Your task to perform on an android device: set the timer Image 0: 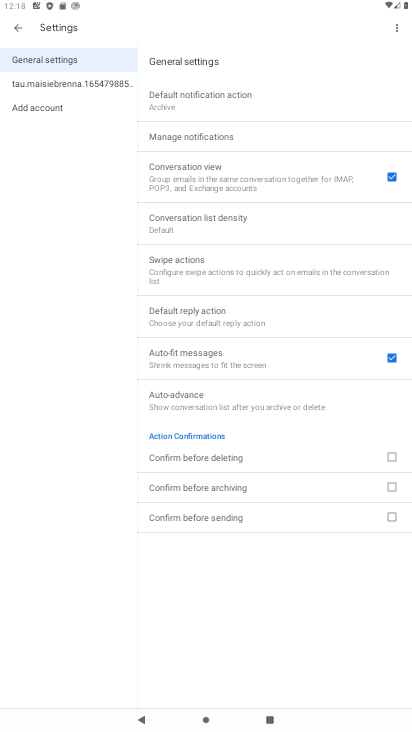
Step 0: press home button
Your task to perform on an android device: set the timer Image 1: 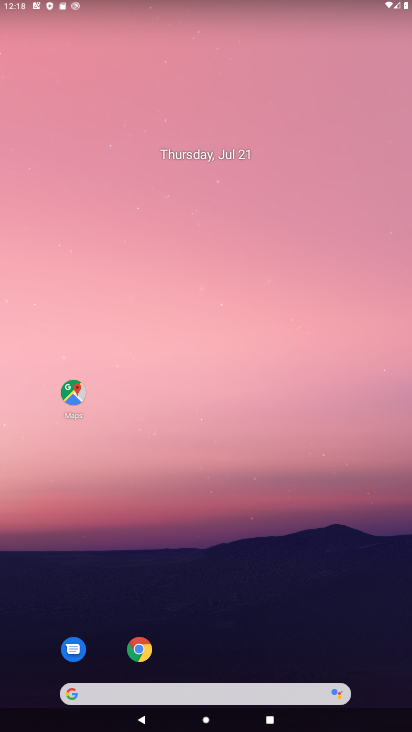
Step 1: drag from (377, 674) to (337, 170)
Your task to perform on an android device: set the timer Image 2: 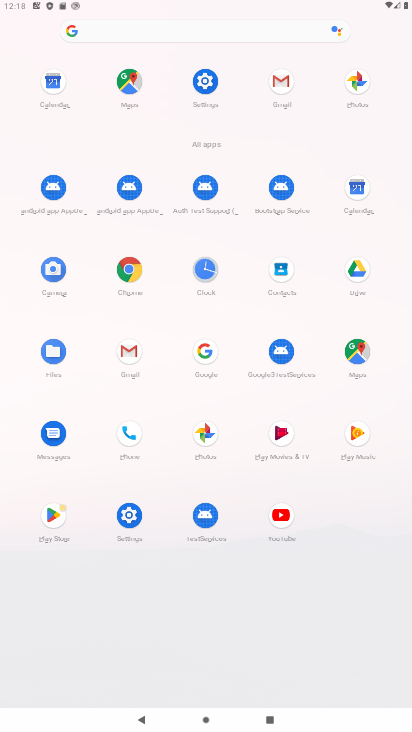
Step 2: click (202, 269)
Your task to perform on an android device: set the timer Image 3: 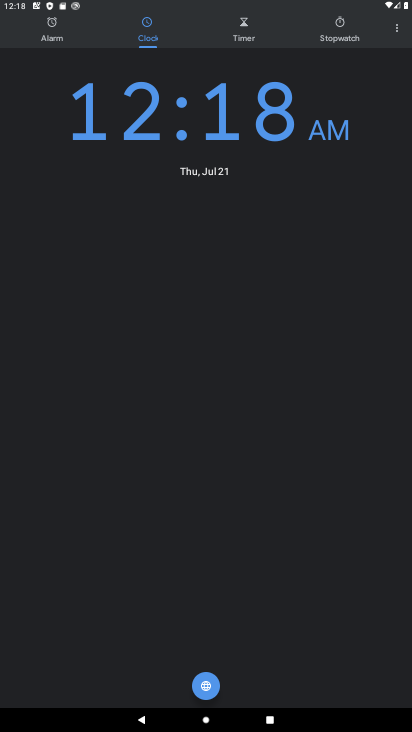
Step 3: click (245, 31)
Your task to perform on an android device: set the timer Image 4: 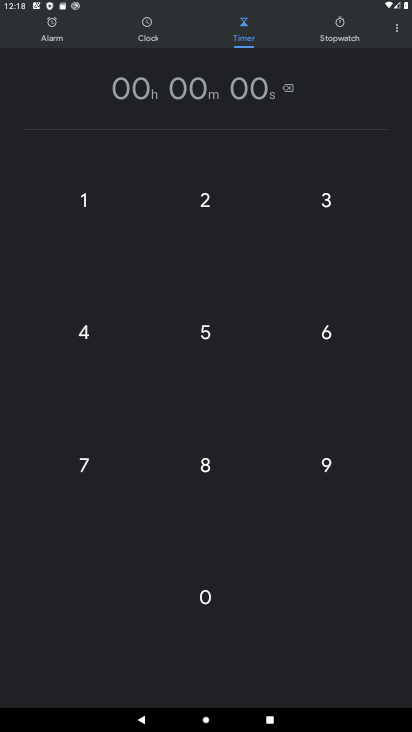
Step 4: click (81, 201)
Your task to perform on an android device: set the timer Image 5: 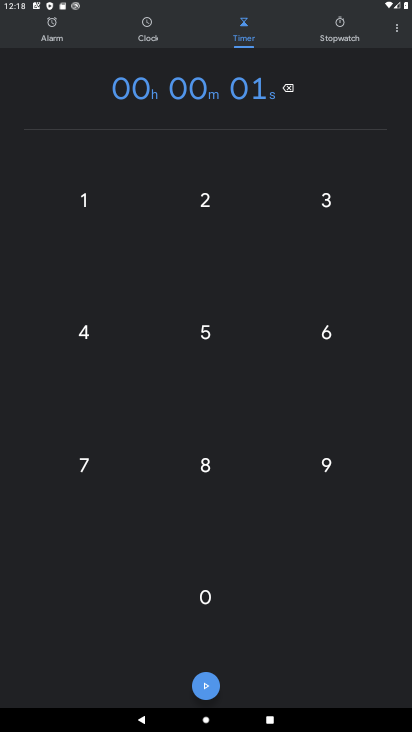
Step 5: click (325, 208)
Your task to perform on an android device: set the timer Image 6: 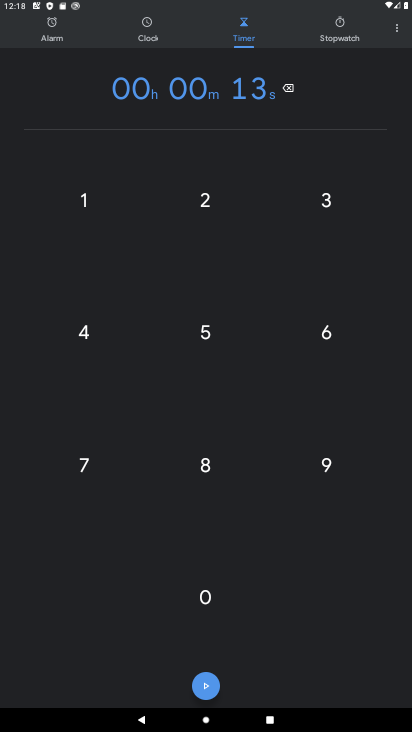
Step 6: click (205, 606)
Your task to perform on an android device: set the timer Image 7: 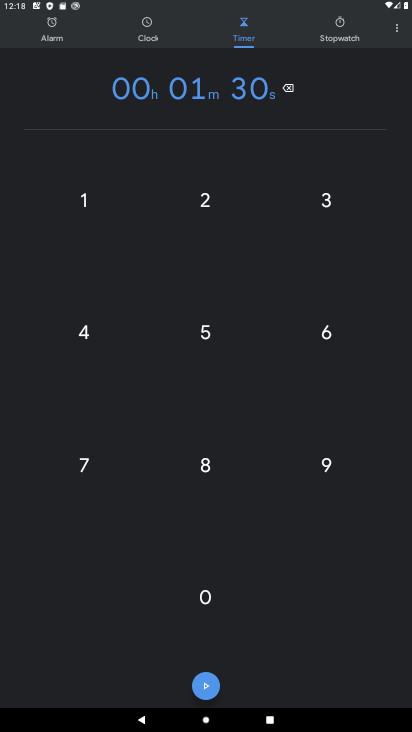
Step 7: click (205, 606)
Your task to perform on an android device: set the timer Image 8: 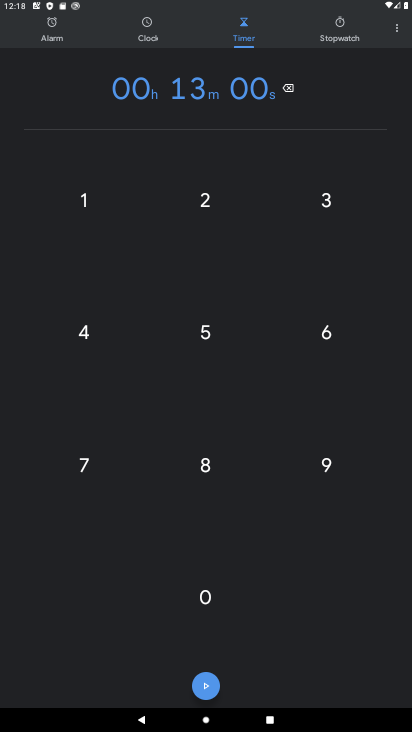
Step 8: click (205, 606)
Your task to perform on an android device: set the timer Image 9: 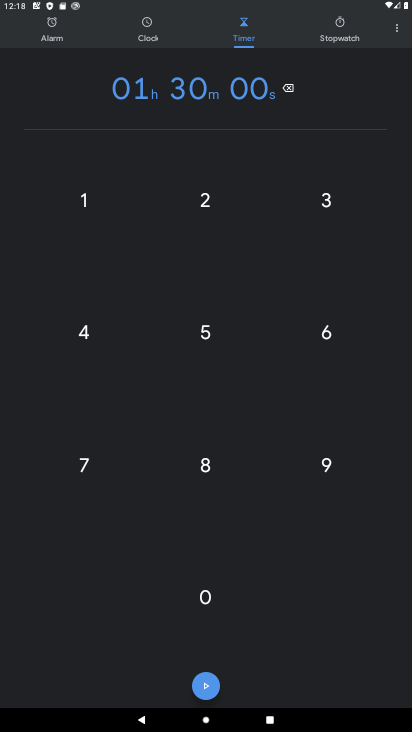
Step 9: task complete